Your task to perform on an android device: open a new tab in the chrome app Image 0: 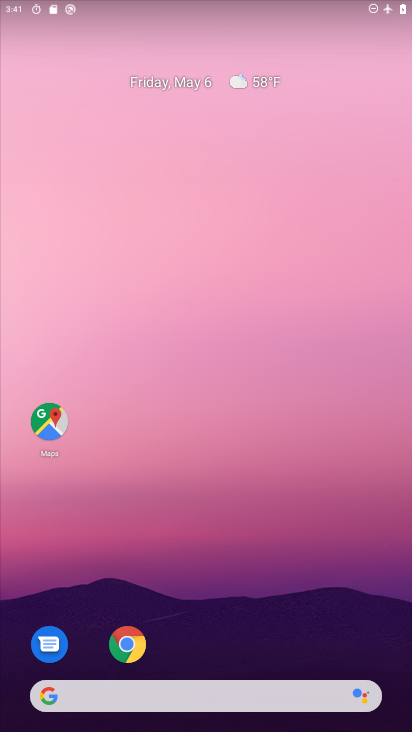
Step 0: click (129, 643)
Your task to perform on an android device: open a new tab in the chrome app Image 1: 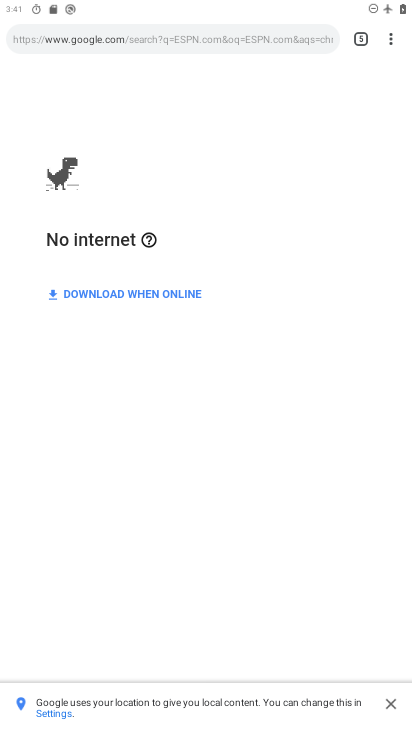
Step 1: click (391, 44)
Your task to perform on an android device: open a new tab in the chrome app Image 2: 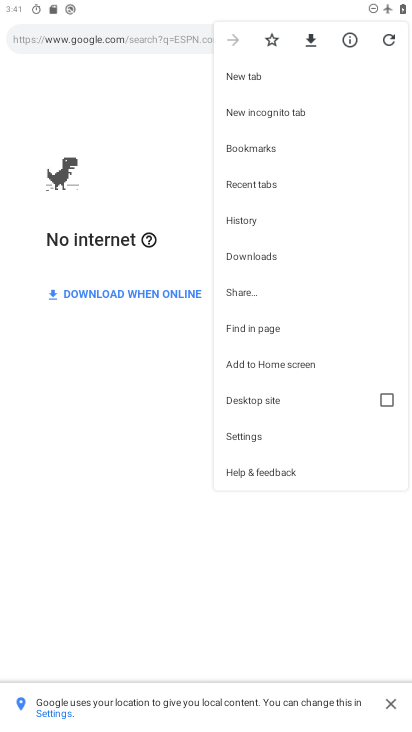
Step 2: click (245, 79)
Your task to perform on an android device: open a new tab in the chrome app Image 3: 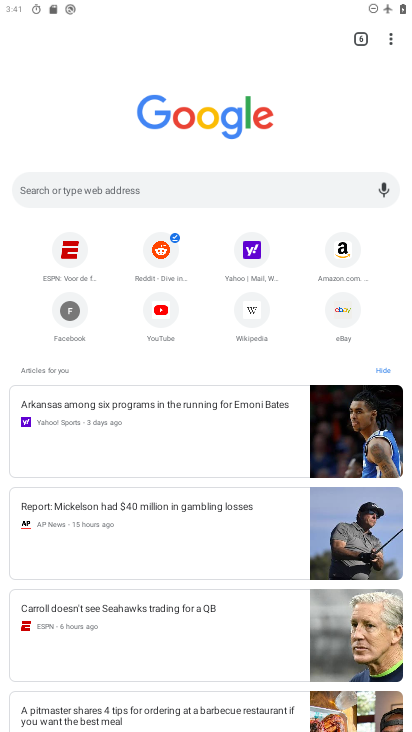
Step 3: task complete